Your task to perform on an android device: add a contact Image 0: 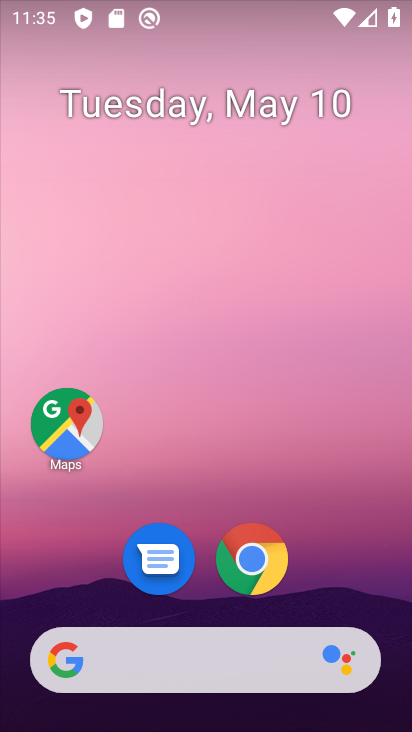
Step 0: drag from (160, 616) to (250, 120)
Your task to perform on an android device: add a contact Image 1: 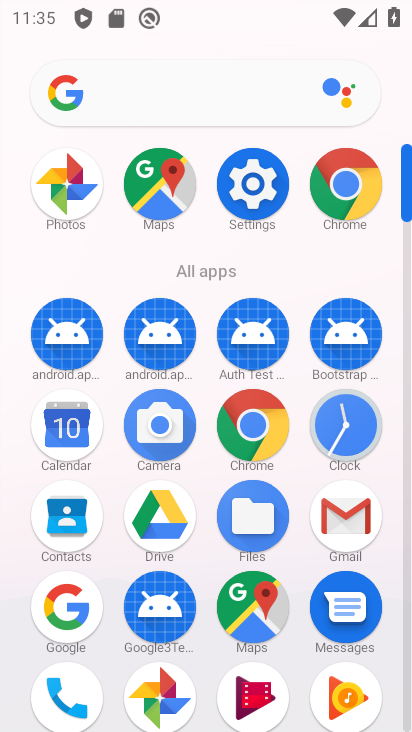
Step 1: click (81, 530)
Your task to perform on an android device: add a contact Image 2: 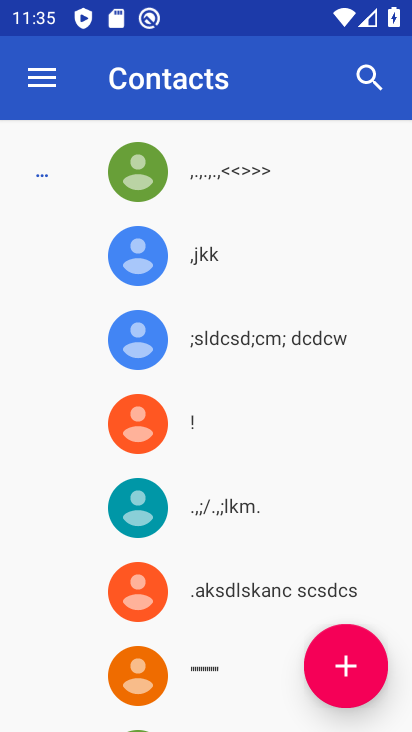
Step 2: click (328, 639)
Your task to perform on an android device: add a contact Image 3: 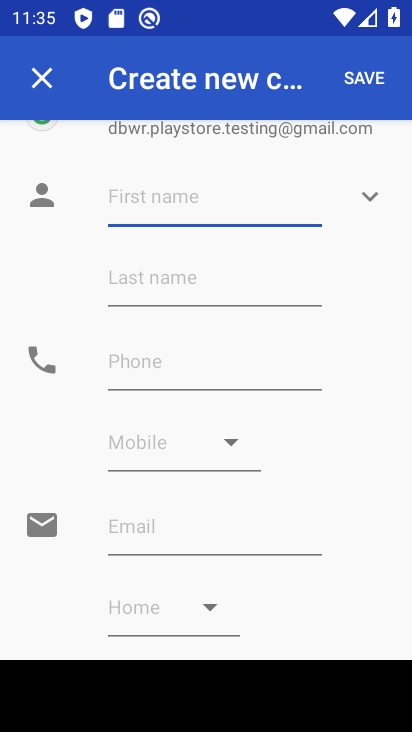
Step 3: type "xcxcxcxcx"
Your task to perform on an android device: add a contact Image 4: 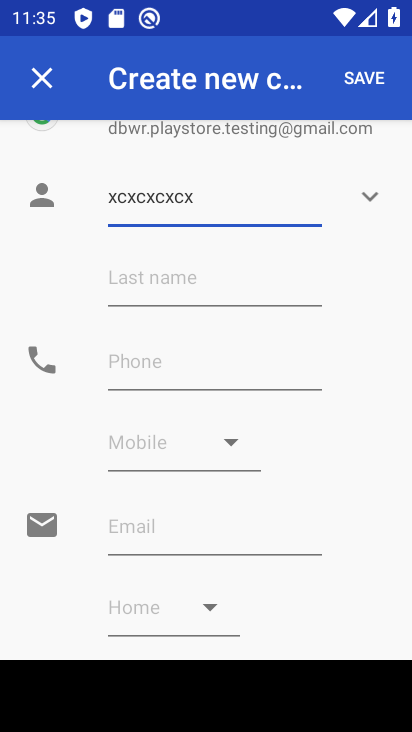
Step 4: click (175, 335)
Your task to perform on an android device: add a contact Image 5: 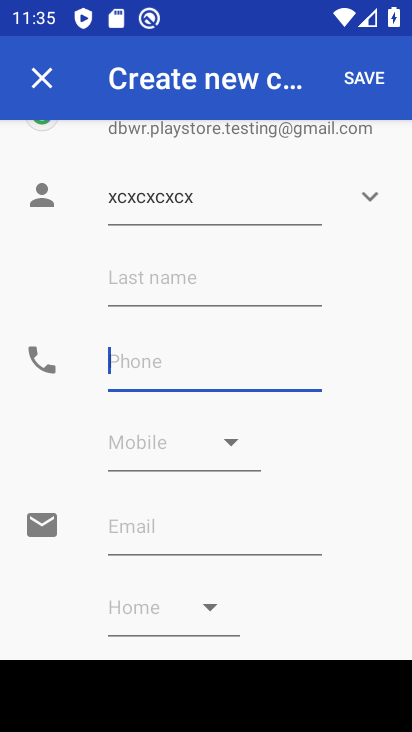
Step 5: type "9299232837"
Your task to perform on an android device: add a contact Image 6: 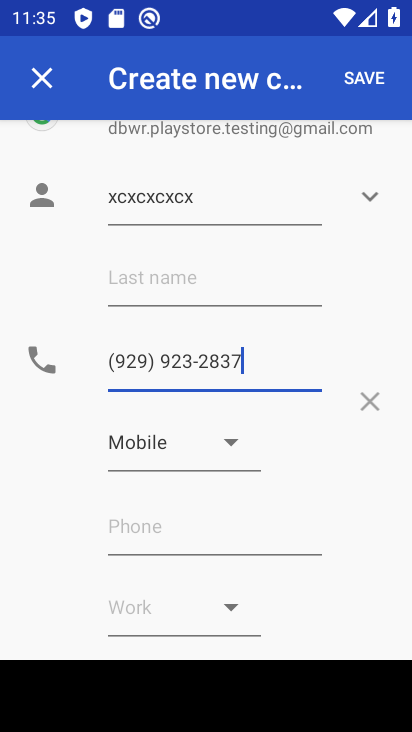
Step 6: click (378, 81)
Your task to perform on an android device: add a contact Image 7: 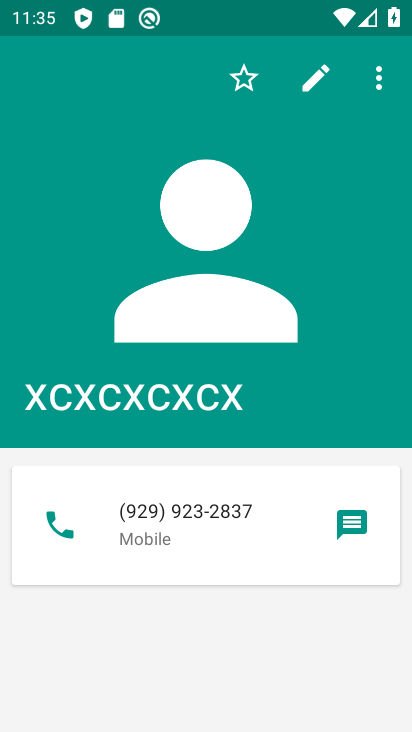
Step 7: task complete